Your task to perform on an android device: turn smart compose on in the gmail app Image 0: 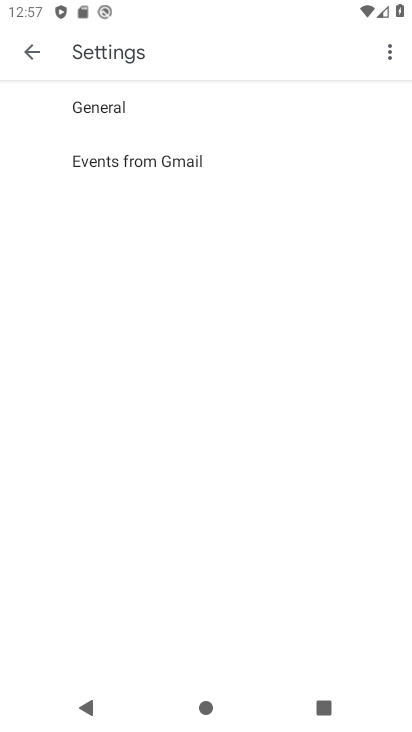
Step 0: press home button
Your task to perform on an android device: turn smart compose on in the gmail app Image 1: 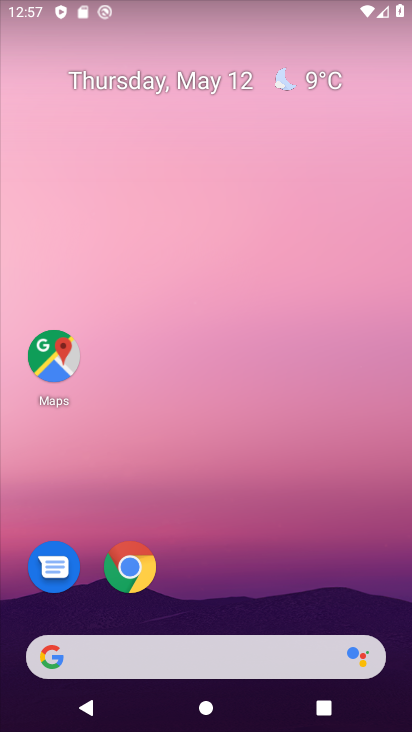
Step 1: drag from (220, 605) to (223, 25)
Your task to perform on an android device: turn smart compose on in the gmail app Image 2: 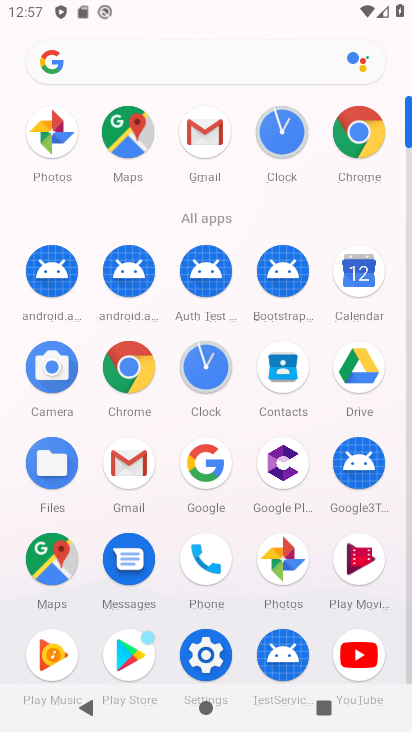
Step 2: click (201, 127)
Your task to perform on an android device: turn smart compose on in the gmail app Image 3: 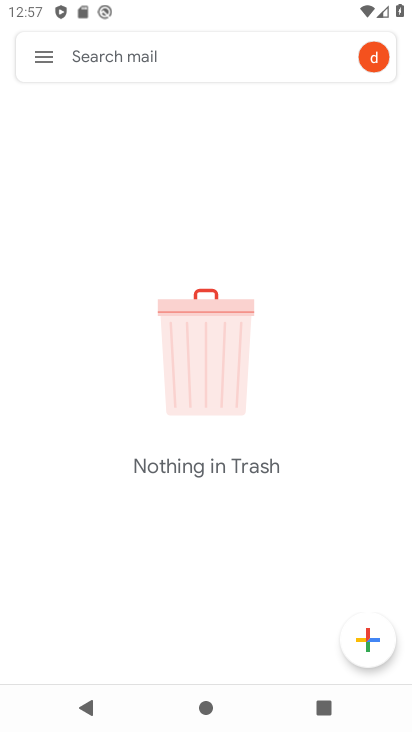
Step 3: click (43, 53)
Your task to perform on an android device: turn smart compose on in the gmail app Image 4: 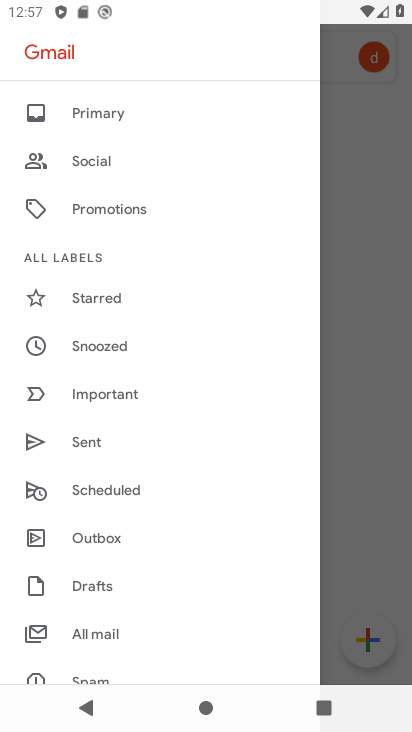
Step 4: drag from (144, 629) to (144, 123)
Your task to perform on an android device: turn smart compose on in the gmail app Image 5: 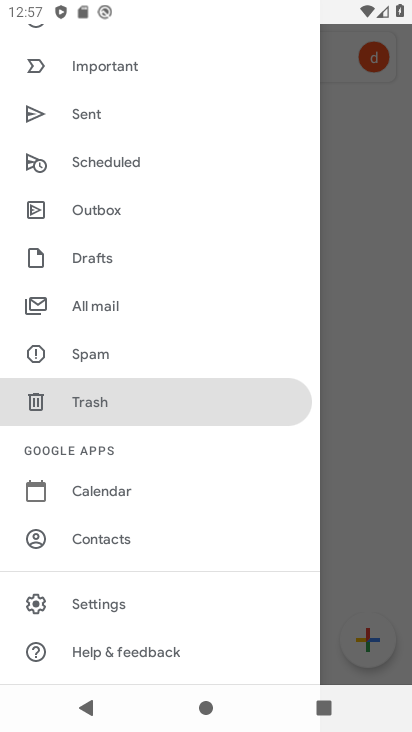
Step 5: click (136, 599)
Your task to perform on an android device: turn smart compose on in the gmail app Image 6: 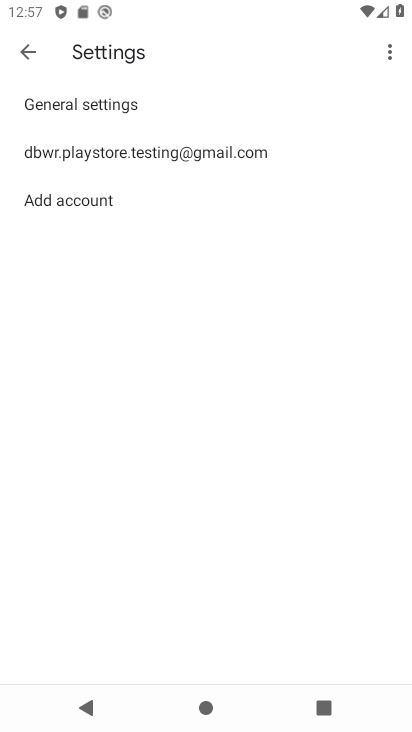
Step 6: click (276, 152)
Your task to perform on an android device: turn smart compose on in the gmail app Image 7: 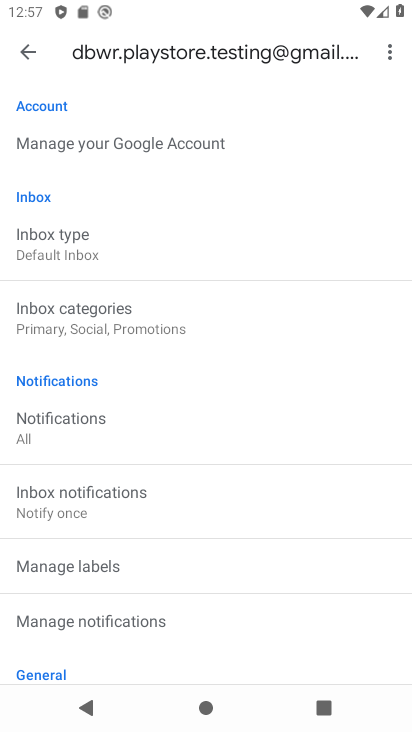
Step 7: task complete